Your task to perform on an android device: turn off notifications settings in the gmail app Image 0: 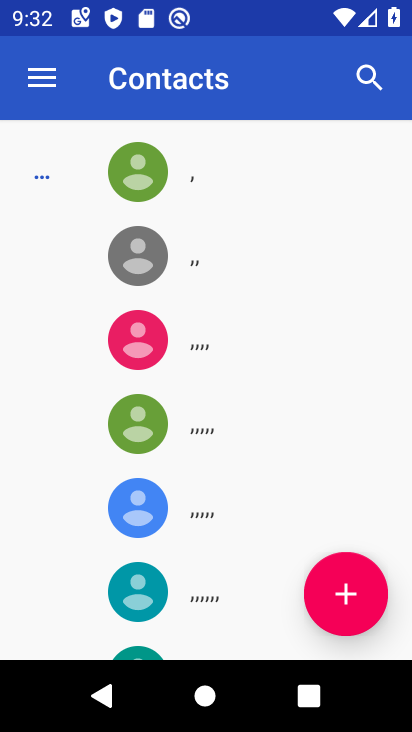
Step 0: press home button
Your task to perform on an android device: turn off notifications settings in the gmail app Image 1: 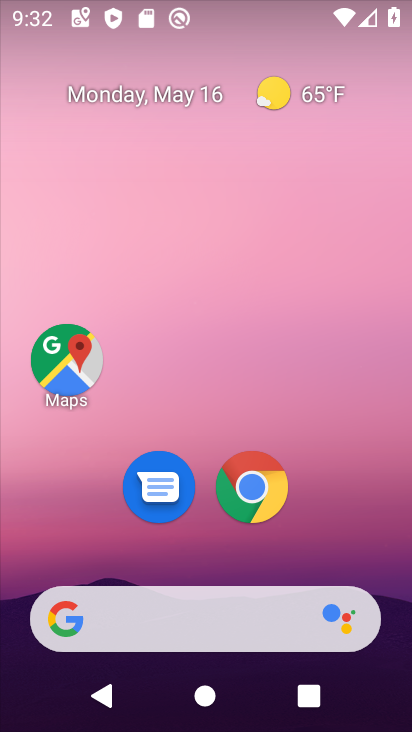
Step 1: drag from (368, 527) to (381, 243)
Your task to perform on an android device: turn off notifications settings in the gmail app Image 2: 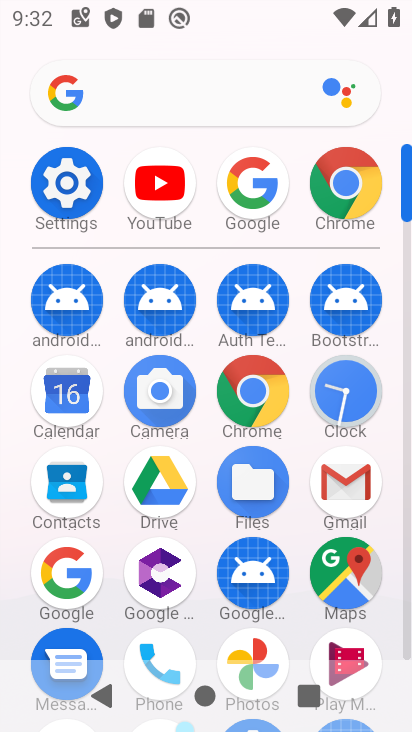
Step 2: click (343, 497)
Your task to perform on an android device: turn off notifications settings in the gmail app Image 3: 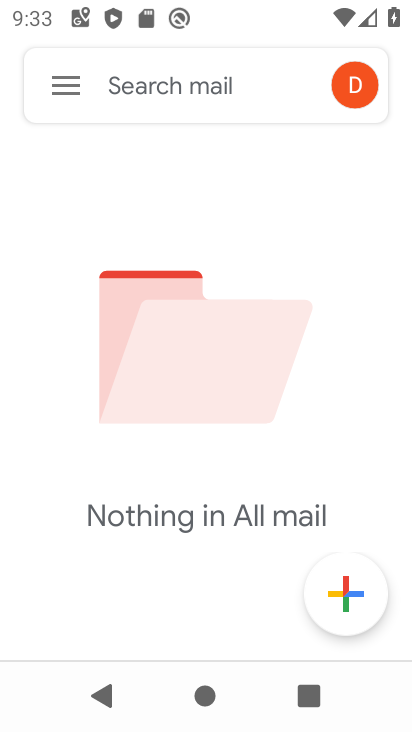
Step 3: click (66, 87)
Your task to perform on an android device: turn off notifications settings in the gmail app Image 4: 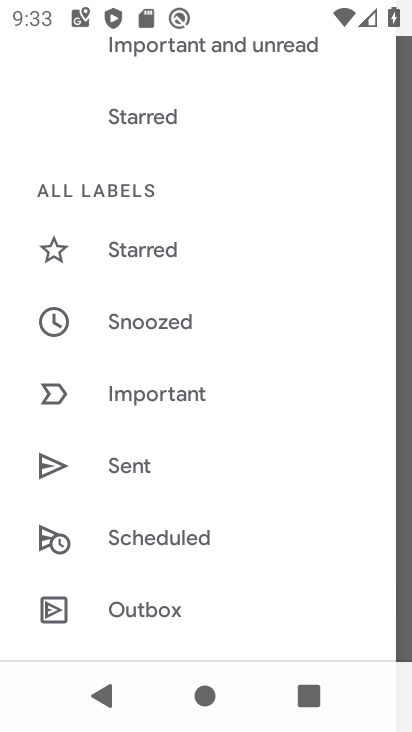
Step 4: drag from (289, 585) to (286, 405)
Your task to perform on an android device: turn off notifications settings in the gmail app Image 5: 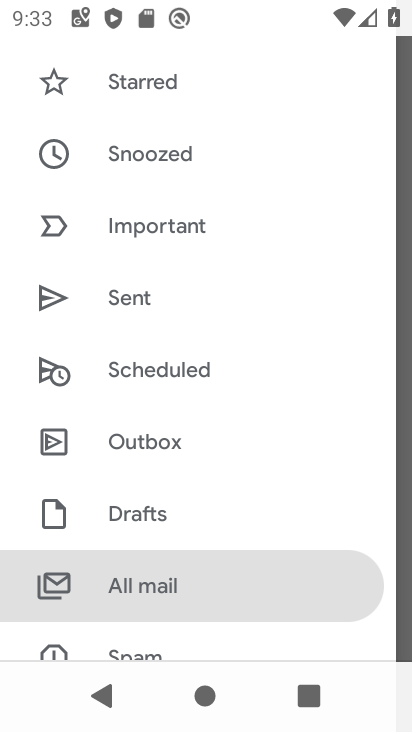
Step 5: drag from (310, 476) to (304, 204)
Your task to perform on an android device: turn off notifications settings in the gmail app Image 6: 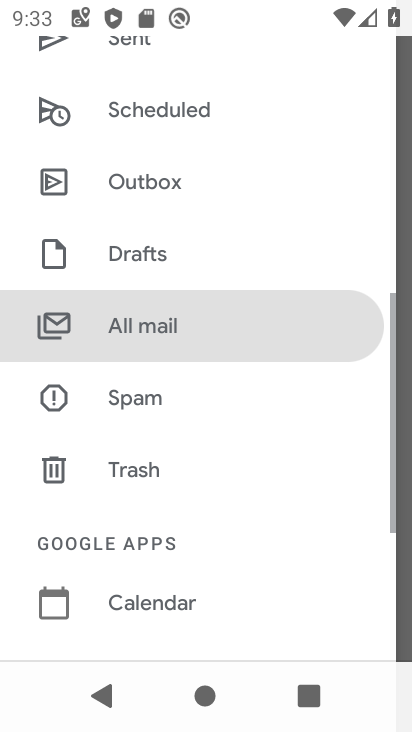
Step 6: drag from (307, 616) to (304, 302)
Your task to perform on an android device: turn off notifications settings in the gmail app Image 7: 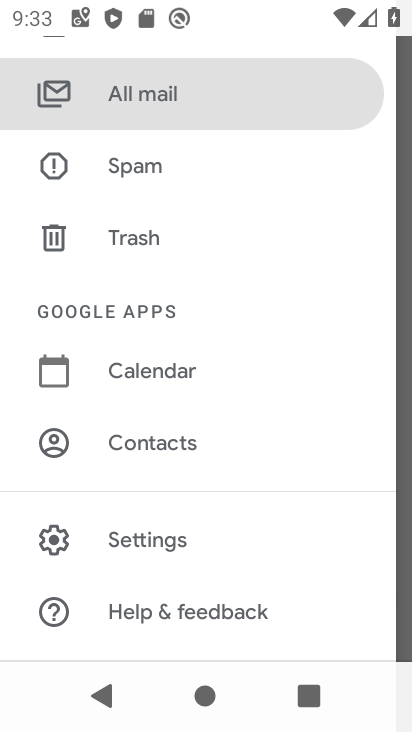
Step 7: click (190, 542)
Your task to perform on an android device: turn off notifications settings in the gmail app Image 8: 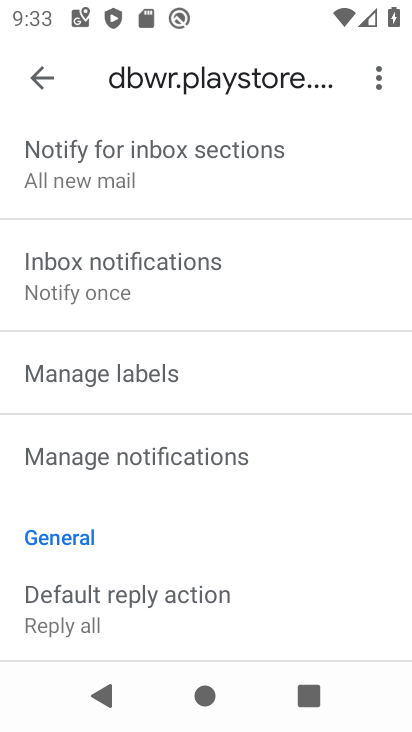
Step 8: click (237, 450)
Your task to perform on an android device: turn off notifications settings in the gmail app Image 9: 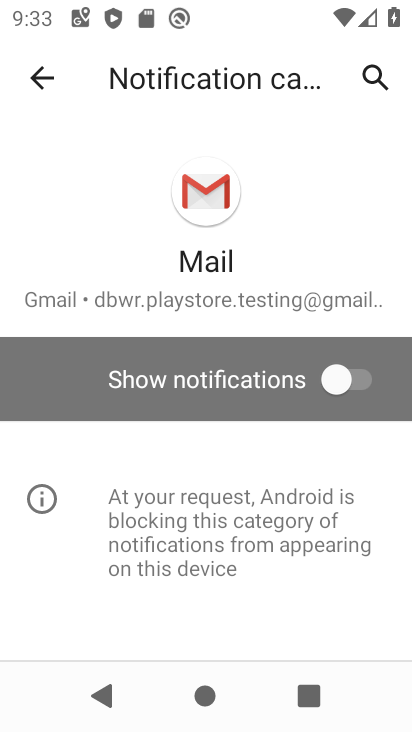
Step 9: task complete